Your task to perform on an android device: toggle wifi Image 0: 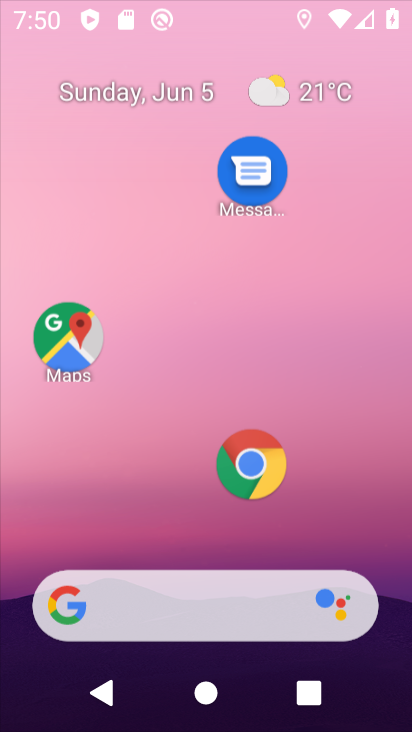
Step 0: click (314, 193)
Your task to perform on an android device: toggle wifi Image 1: 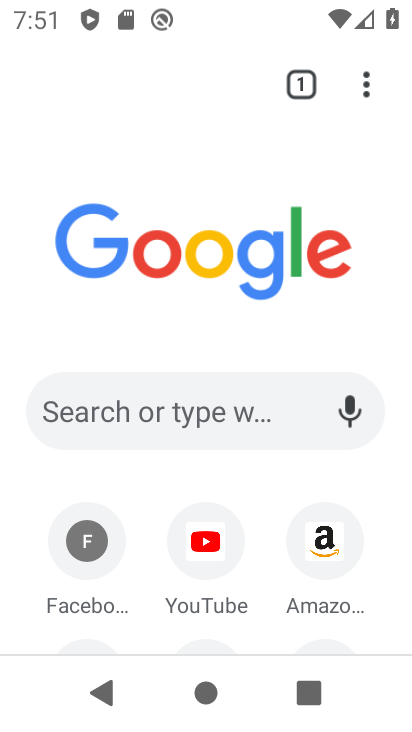
Step 1: drag from (267, 491) to (339, 270)
Your task to perform on an android device: toggle wifi Image 2: 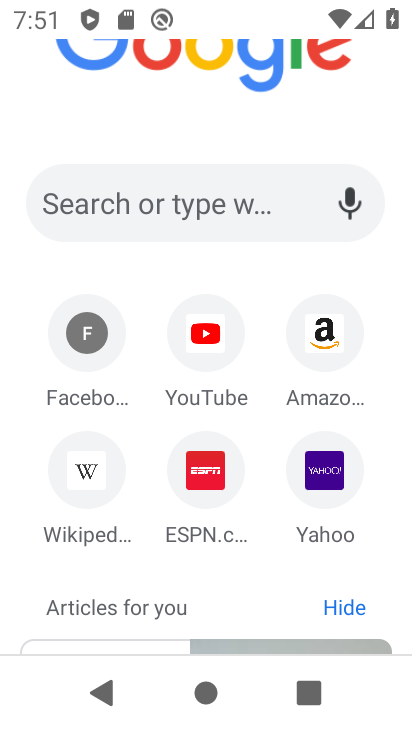
Step 2: press home button
Your task to perform on an android device: toggle wifi Image 3: 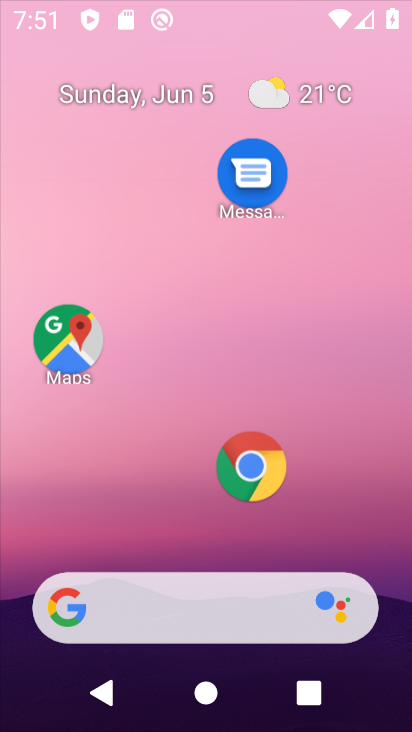
Step 3: drag from (241, 583) to (311, 234)
Your task to perform on an android device: toggle wifi Image 4: 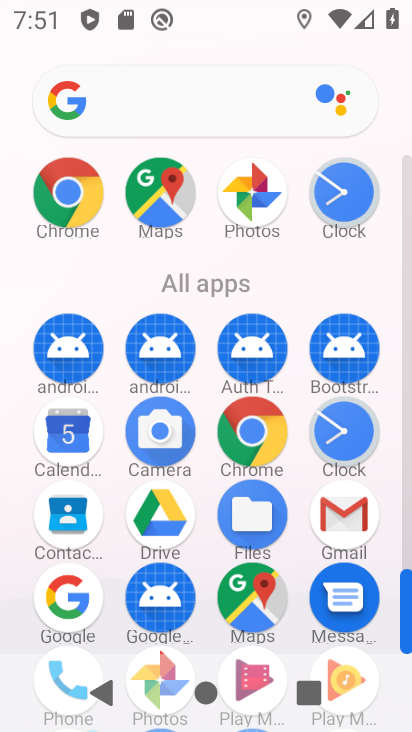
Step 4: drag from (199, 639) to (257, 196)
Your task to perform on an android device: toggle wifi Image 5: 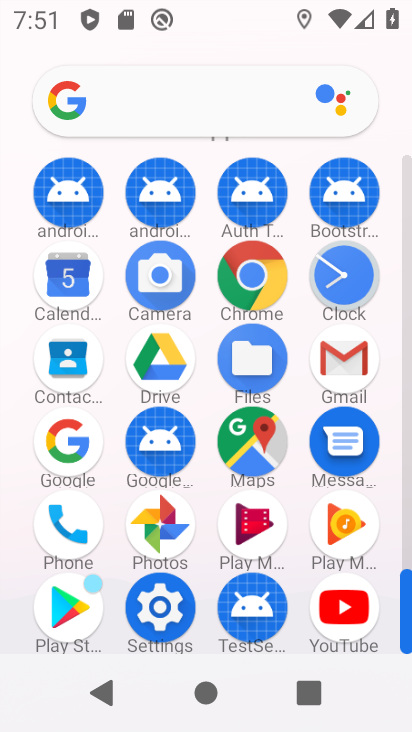
Step 5: click (153, 594)
Your task to perform on an android device: toggle wifi Image 6: 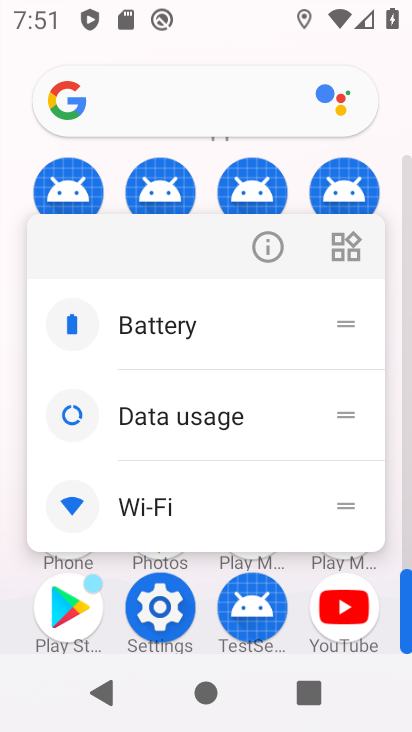
Step 6: click (172, 514)
Your task to perform on an android device: toggle wifi Image 7: 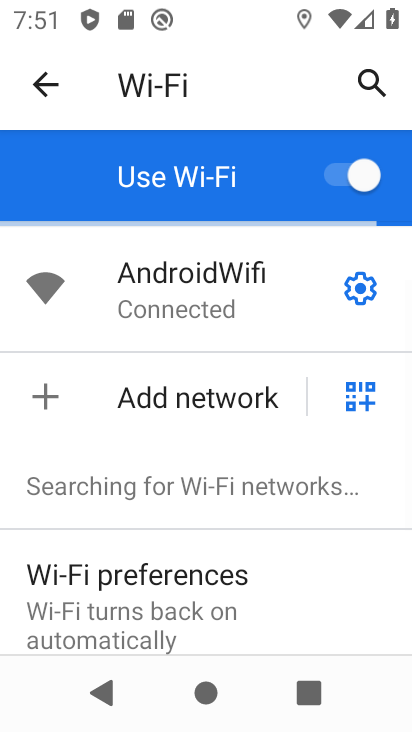
Step 7: task complete